Your task to perform on an android device: Open calendar and show me the second week of next month Image 0: 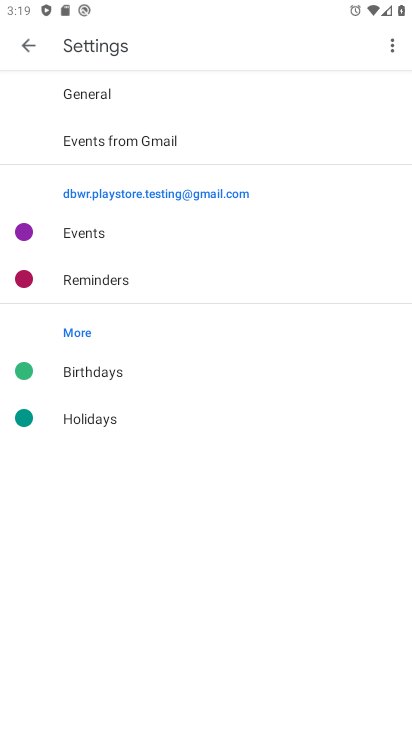
Step 0: press home button
Your task to perform on an android device: Open calendar and show me the second week of next month Image 1: 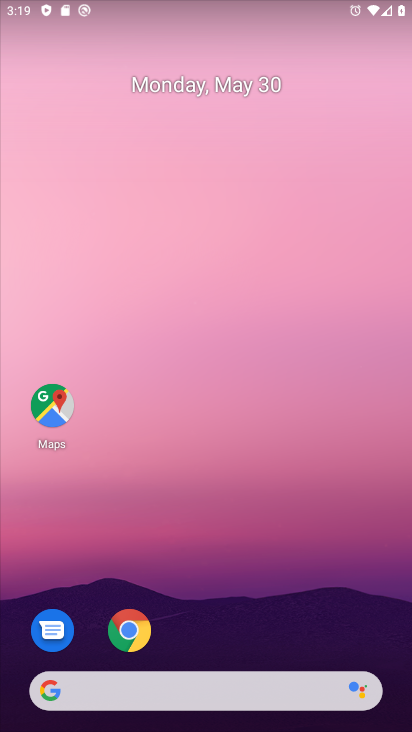
Step 1: drag from (269, 639) to (273, 16)
Your task to perform on an android device: Open calendar and show me the second week of next month Image 2: 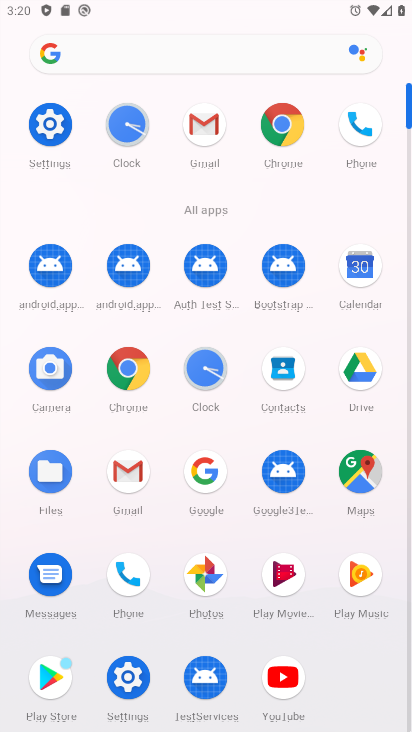
Step 2: click (353, 262)
Your task to perform on an android device: Open calendar and show me the second week of next month Image 3: 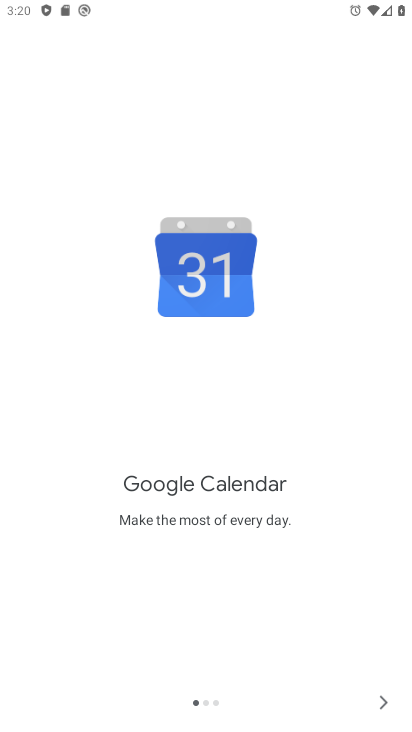
Step 3: click (391, 705)
Your task to perform on an android device: Open calendar and show me the second week of next month Image 4: 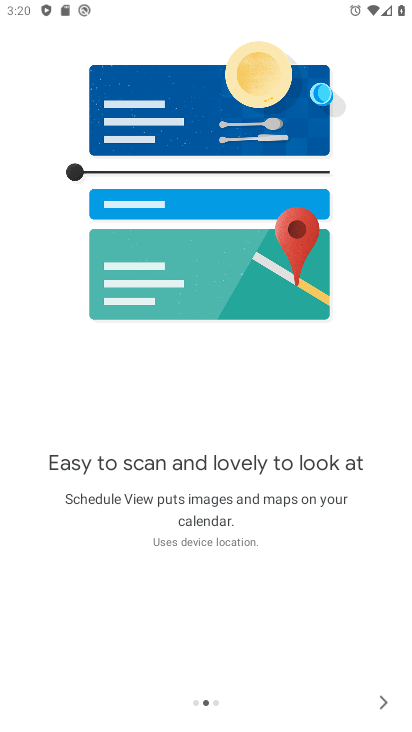
Step 4: click (391, 705)
Your task to perform on an android device: Open calendar and show me the second week of next month Image 5: 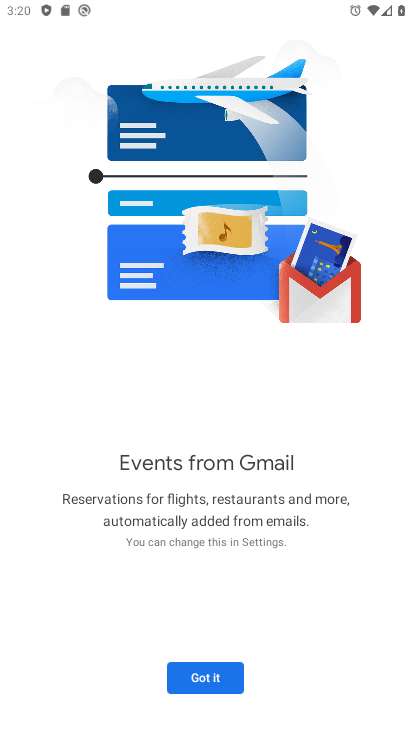
Step 5: click (210, 675)
Your task to perform on an android device: Open calendar and show me the second week of next month Image 6: 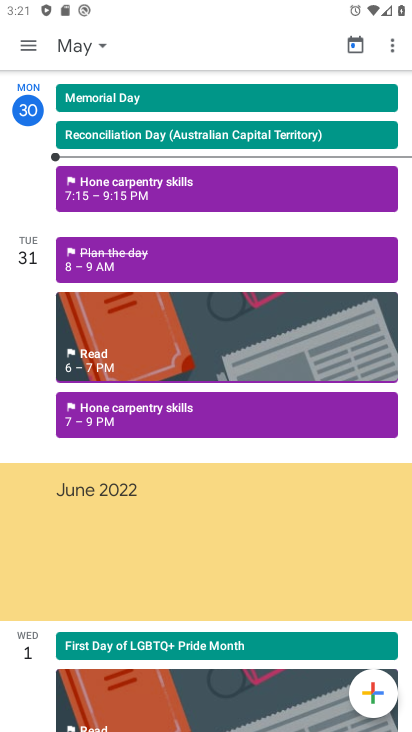
Step 6: click (98, 41)
Your task to perform on an android device: Open calendar and show me the second week of next month Image 7: 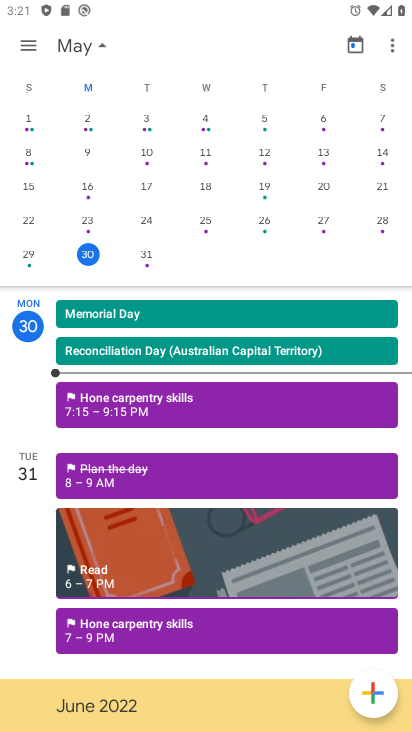
Step 7: drag from (373, 165) to (0, 236)
Your task to perform on an android device: Open calendar and show me the second week of next month Image 8: 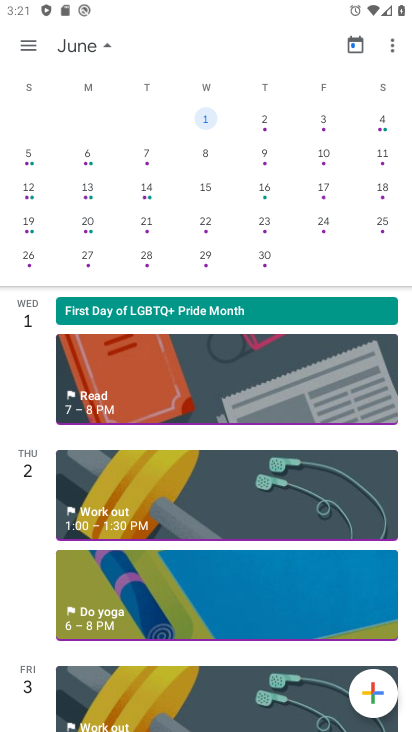
Step 8: click (200, 153)
Your task to perform on an android device: Open calendar and show me the second week of next month Image 9: 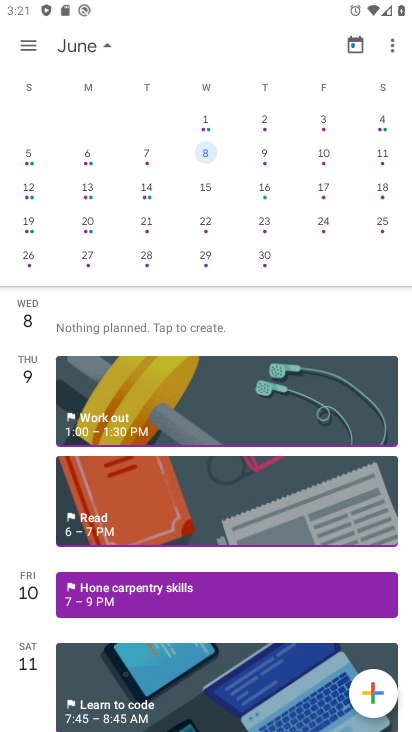
Step 9: task complete